Your task to perform on an android device: Open Reddit.com Image 0: 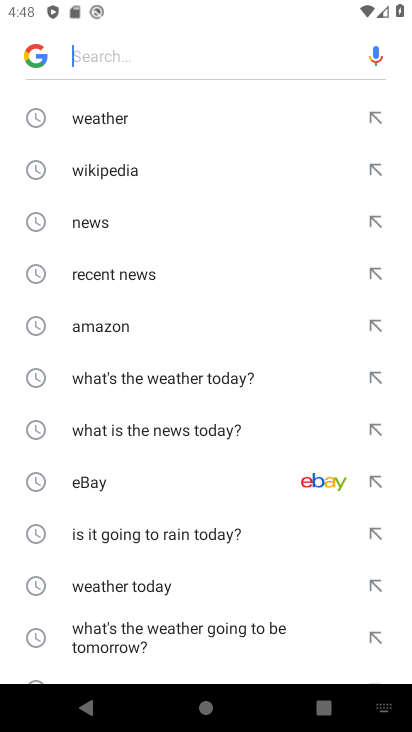
Step 0: press home button
Your task to perform on an android device: Open Reddit.com Image 1: 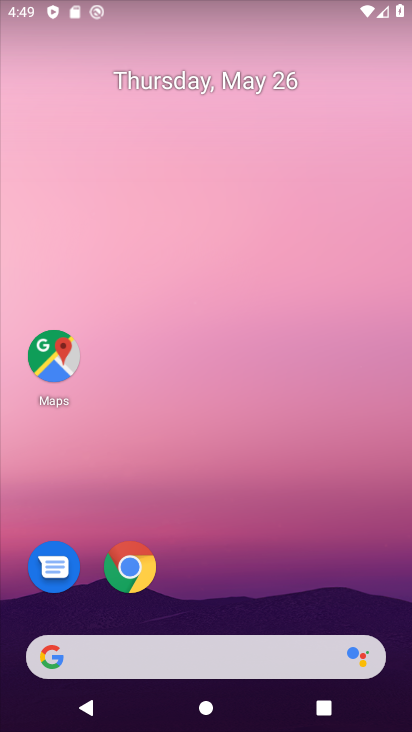
Step 1: click (210, 651)
Your task to perform on an android device: Open Reddit.com Image 2: 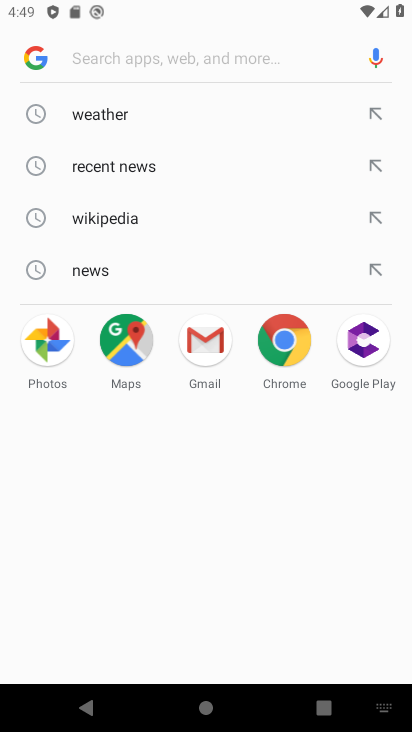
Step 2: type " Reddit.com"
Your task to perform on an android device: Open Reddit.com Image 3: 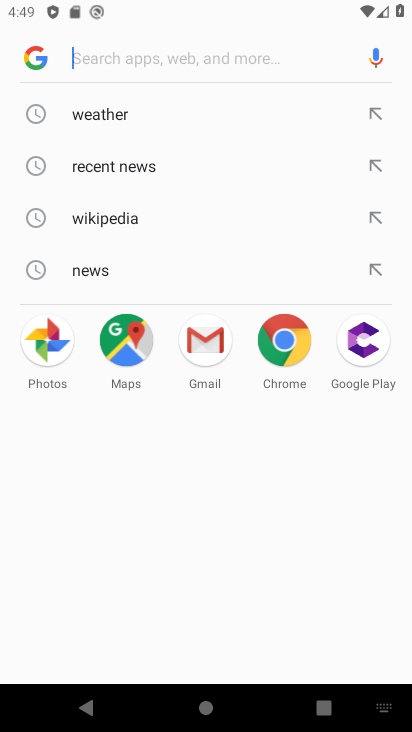
Step 3: click (135, 64)
Your task to perform on an android device: Open Reddit.com Image 4: 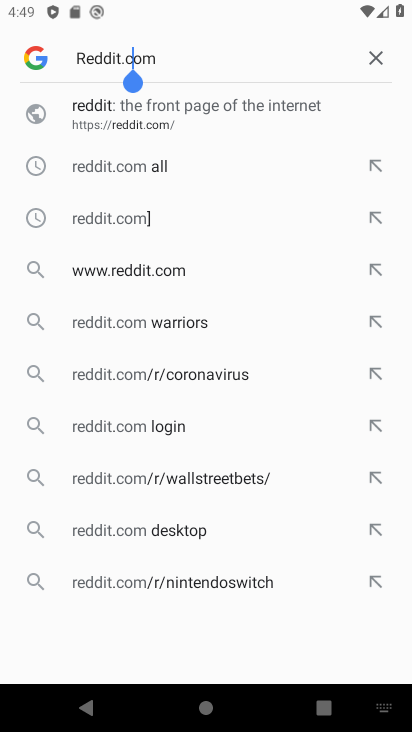
Step 4: click (166, 109)
Your task to perform on an android device: Open Reddit.com Image 5: 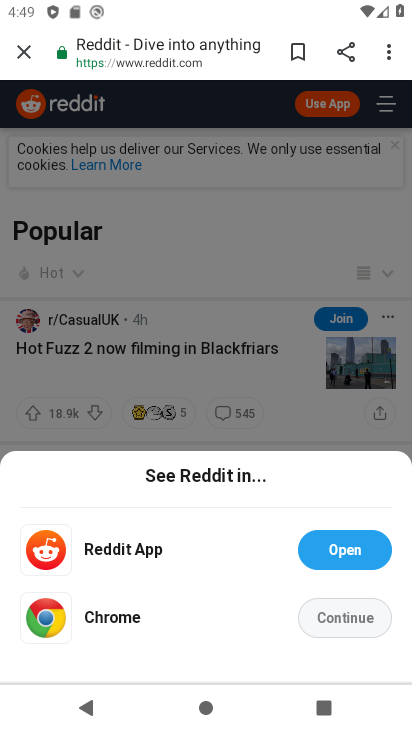
Step 5: task complete